Your task to perform on an android device: Open my contact list Image 0: 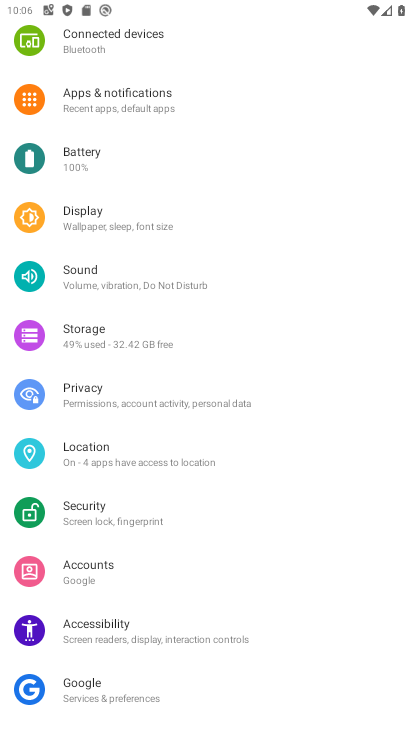
Step 0: press home button
Your task to perform on an android device: Open my contact list Image 1: 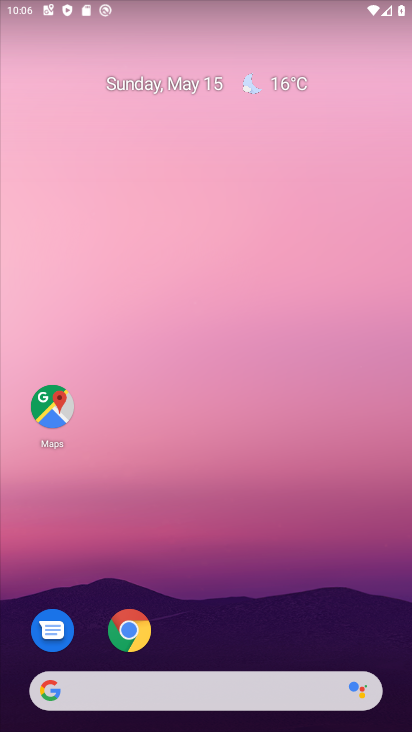
Step 1: drag from (207, 655) to (218, 308)
Your task to perform on an android device: Open my contact list Image 2: 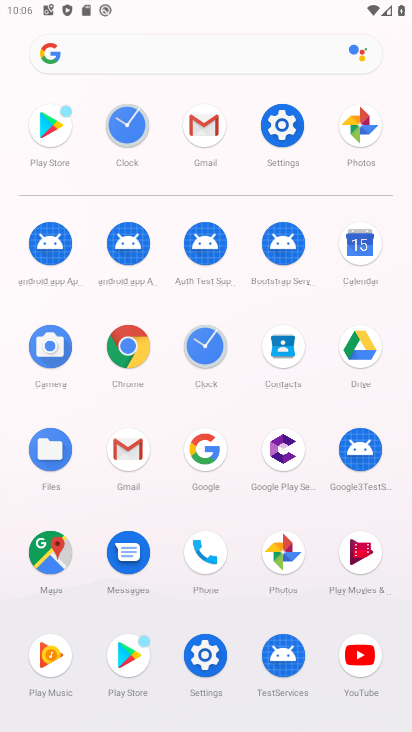
Step 2: click (283, 359)
Your task to perform on an android device: Open my contact list Image 3: 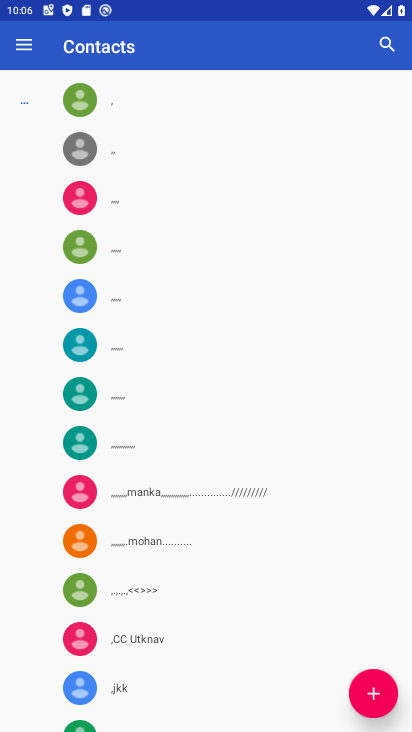
Step 3: task complete